Your task to perform on an android device: turn on the 12-hour format for clock Image 0: 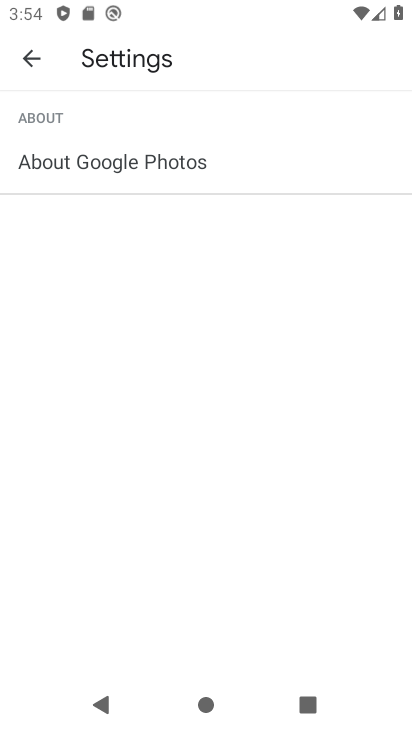
Step 0: press home button
Your task to perform on an android device: turn on the 12-hour format for clock Image 1: 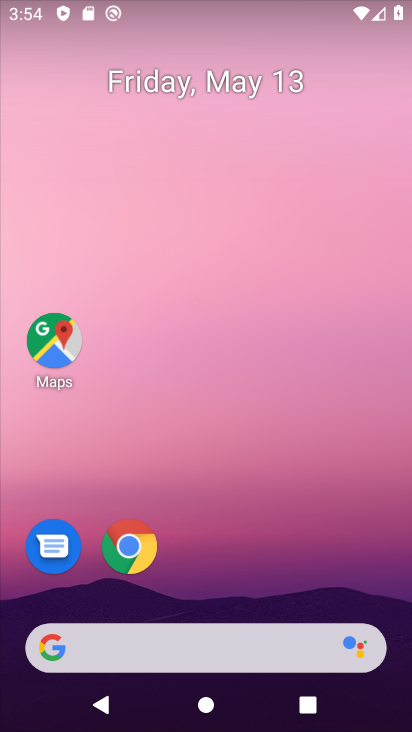
Step 1: drag from (181, 613) to (301, 150)
Your task to perform on an android device: turn on the 12-hour format for clock Image 2: 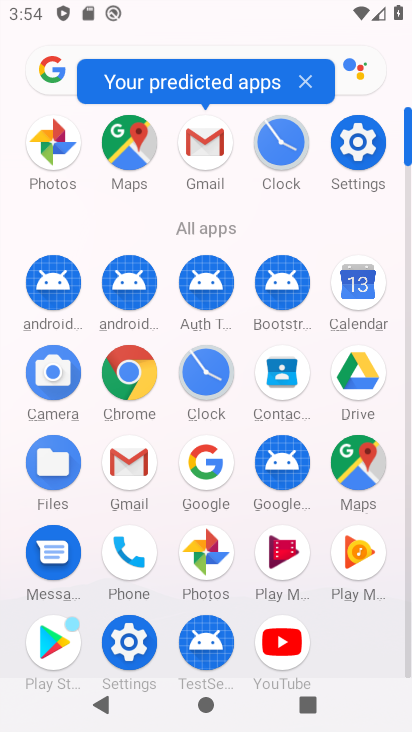
Step 2: click (212, 365)
Your task to perform on an android device: turn on the 12-hour format for clock Image 3: 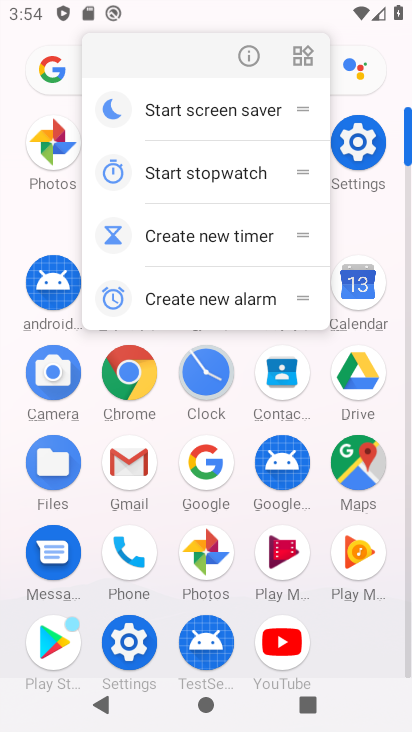
Step 3: click (212, 365)
Your task to perform on an android device: turn on the 12-hour format for clock Image 4: 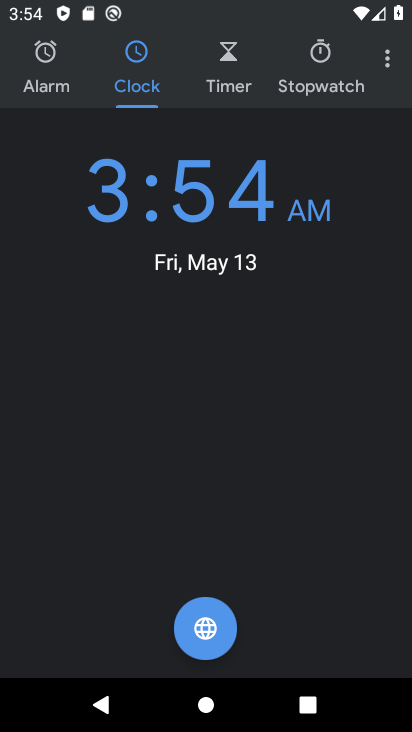
Step 4: click (397, 68)
Your task to perform on an android device: turn on the 12-hour format for clock Image 5: 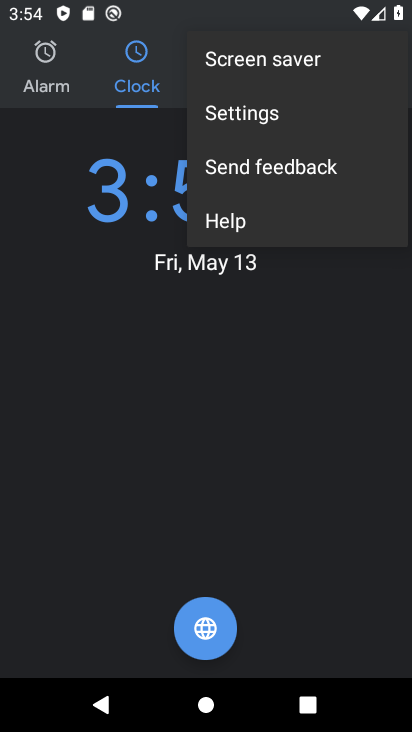
Step 5: click (391, 100)
Your task to perform on an android device: turn on the 12-hour format for clock Image 6: 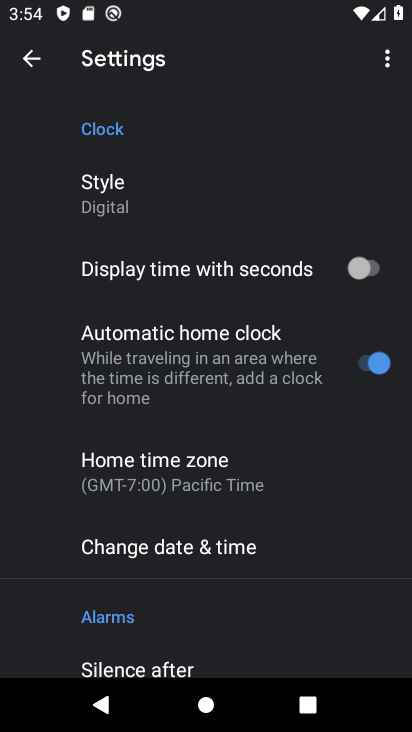
Step 6: click (249, 565)
Your task to perform on an android device: turn on the 12-hour format for clock Image 7: 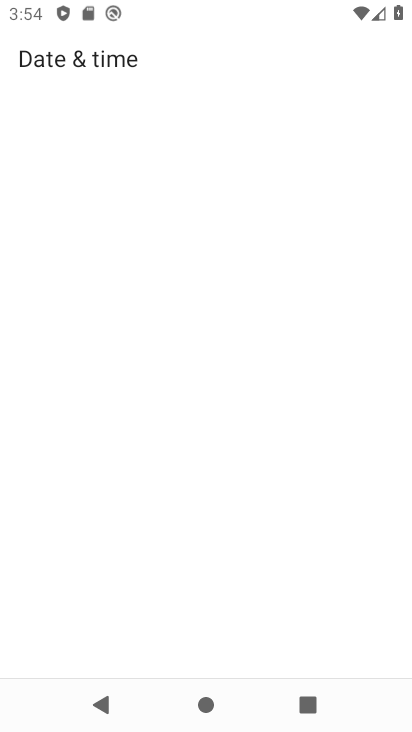
Step 7: task complete